Your task to perform on an android device: turn on the 12-hour format for clock Image 0: 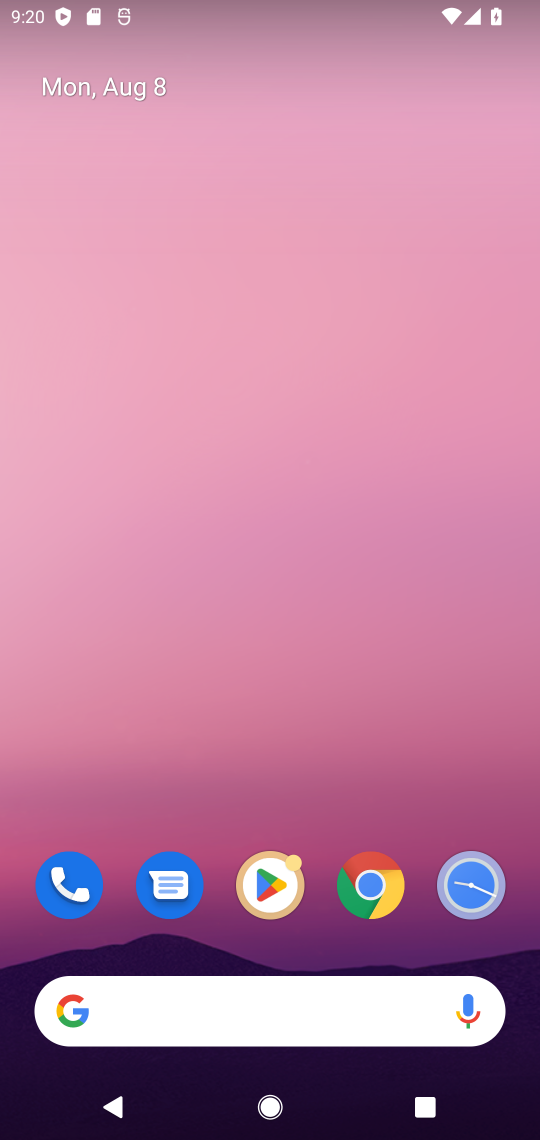
Step 0: drag from (375, 770) to (418, 112)
Your task to perform on an android device: turn on the 12-hour format for clock Image 1: 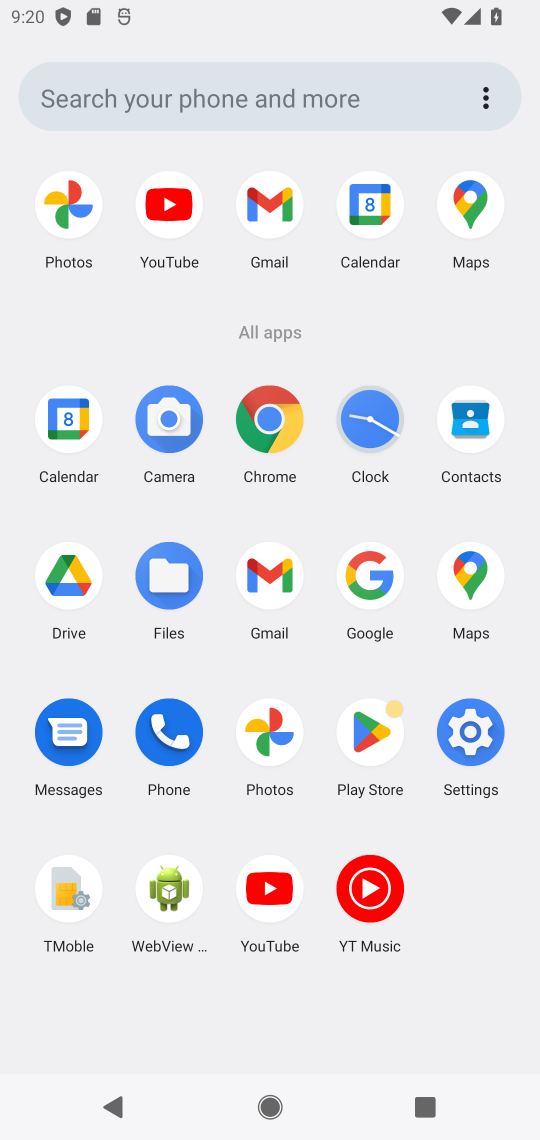
Step 1: click (360, 469)
Your task to perform on an android device: turn on the 12-hour format for clock Image 2: 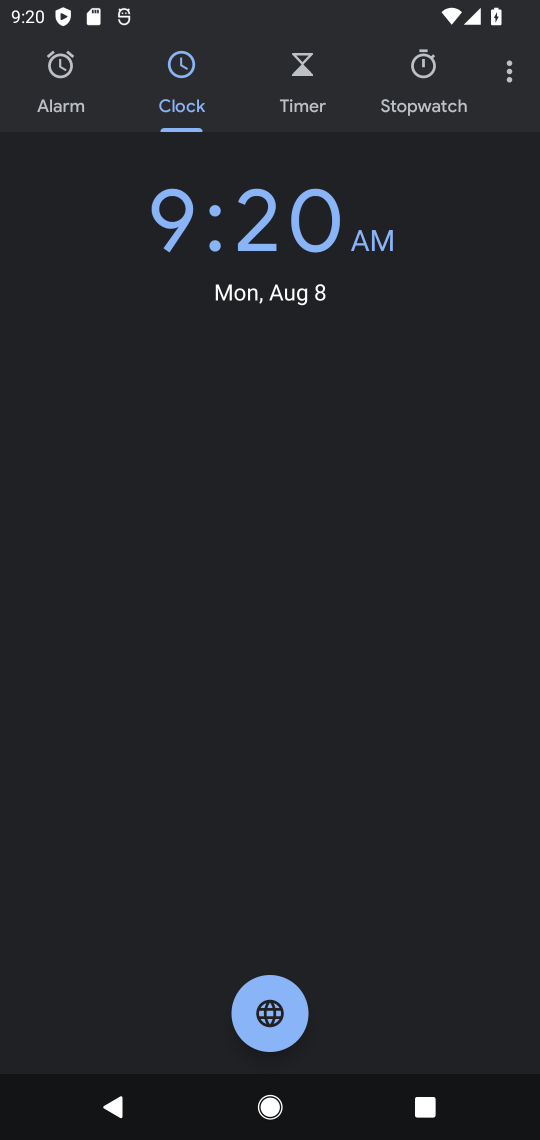
Step 2: click (509, 69)
Your task to perform on an android device: turn on the 12-hour format for clock Image 3: 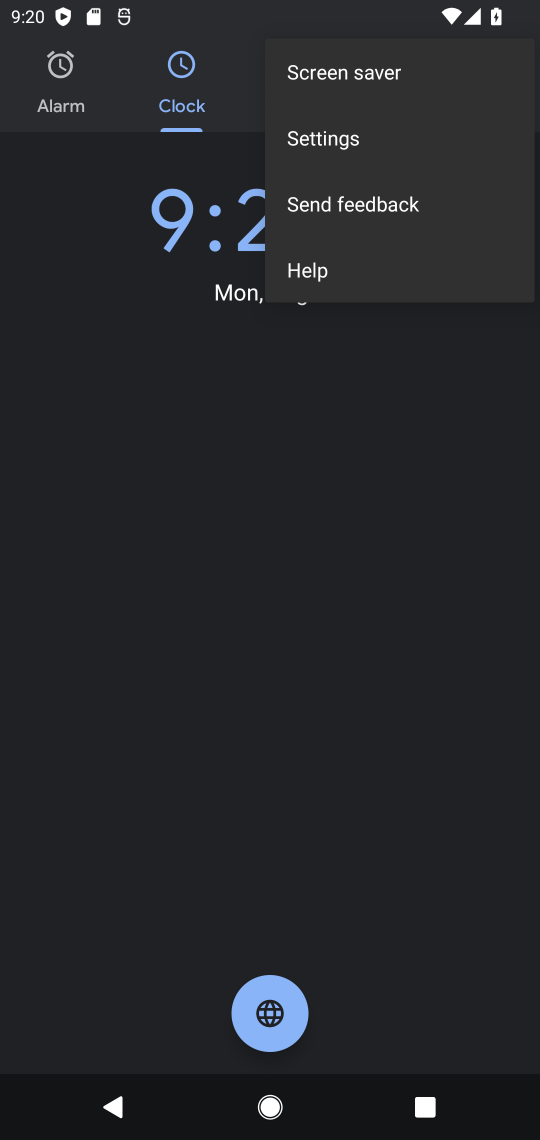
Step 3: click (378, 154)
Your task to perform on an android device: turn on the 12-hour format for clock Image 4: 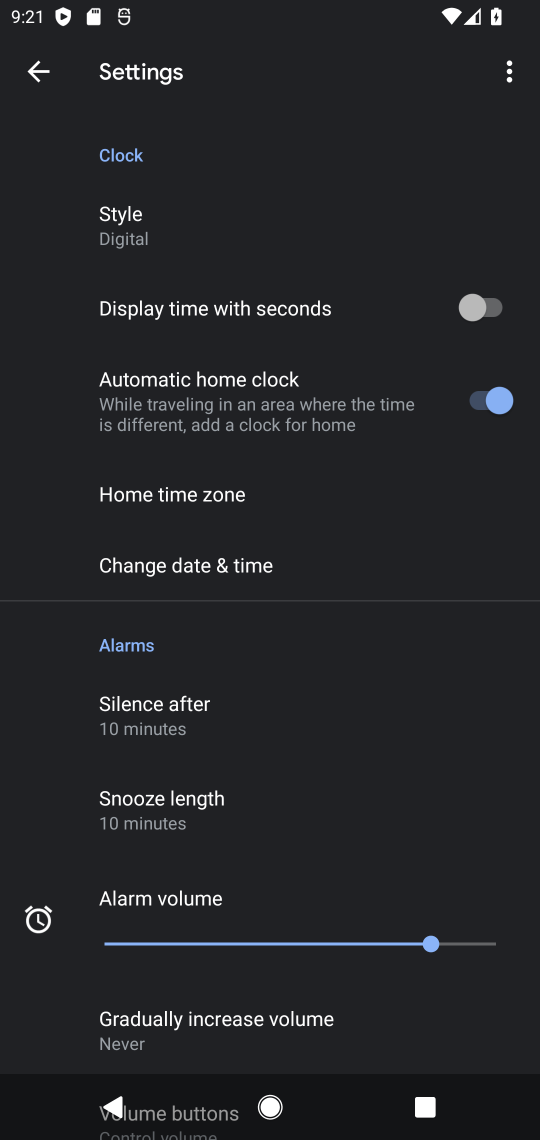
Step 4: click (190, 578)
Your task to perform on an android device: turn on the 12-hour format for clock Image 5: 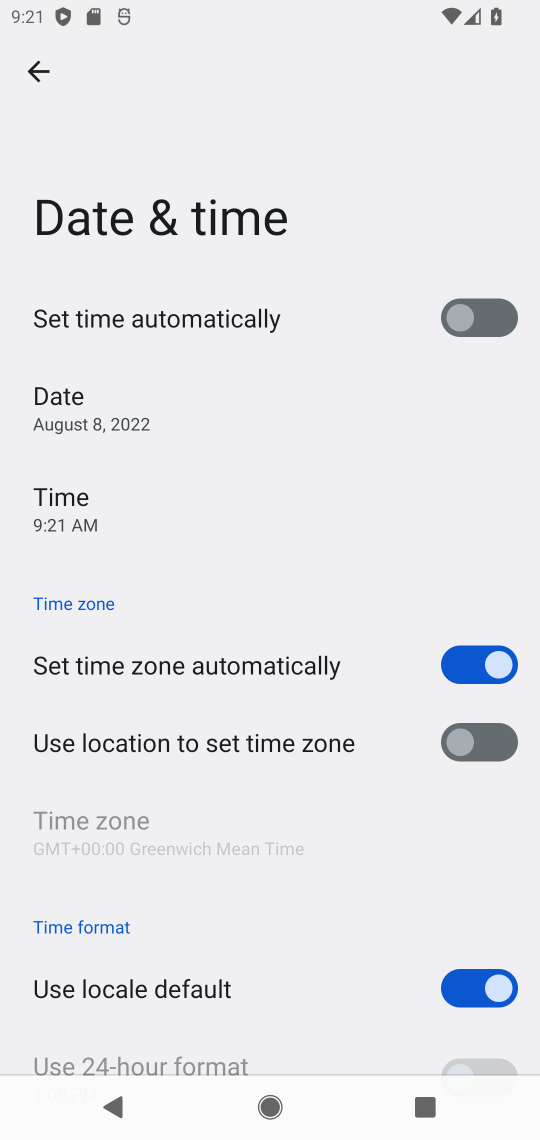
Step 5: drag from (379, 912) to (399, 498)
Your task to perform on an android device: turn on the 12-hour format for clock Image 6: 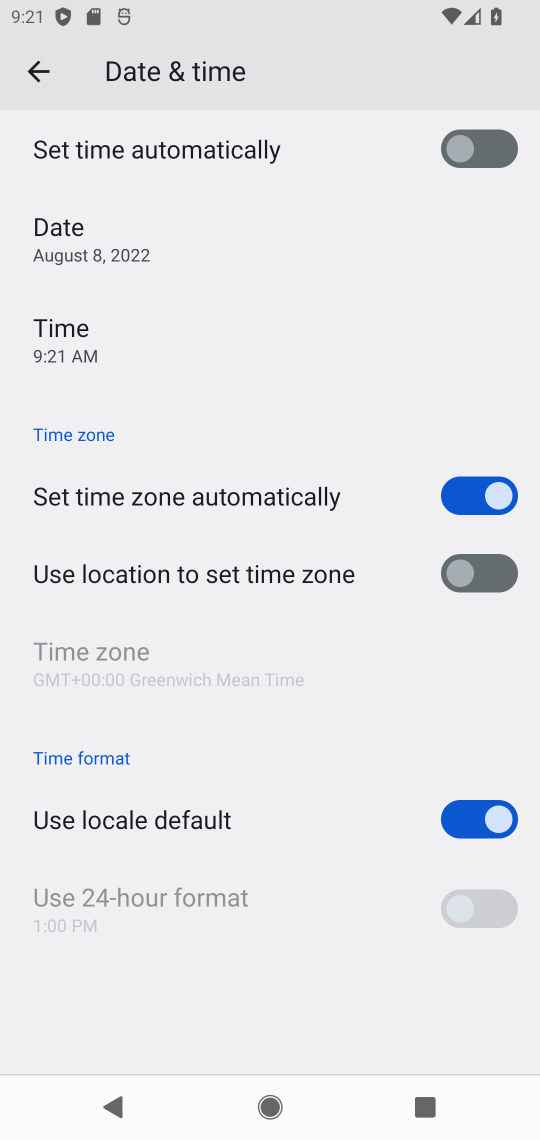
Step 6: drag from (390, 824) to (355, 914)
Your task to perform on an android device: turn on the 12-hour format for clock Image 7: 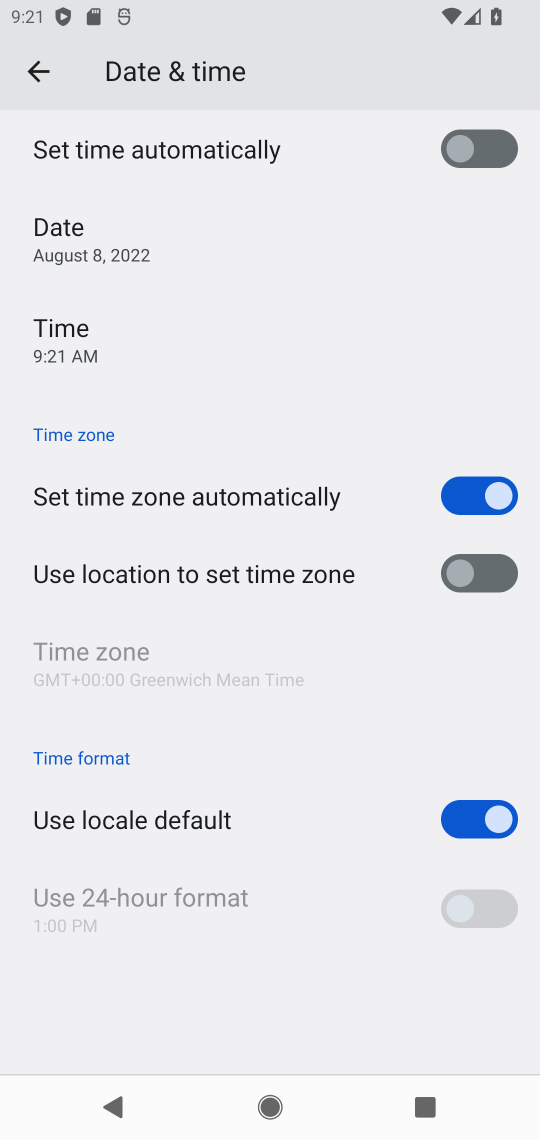
Step 7: click (486, 914)
Your task to perform on an android device: turn on the 12-hour format for clock Image 8: 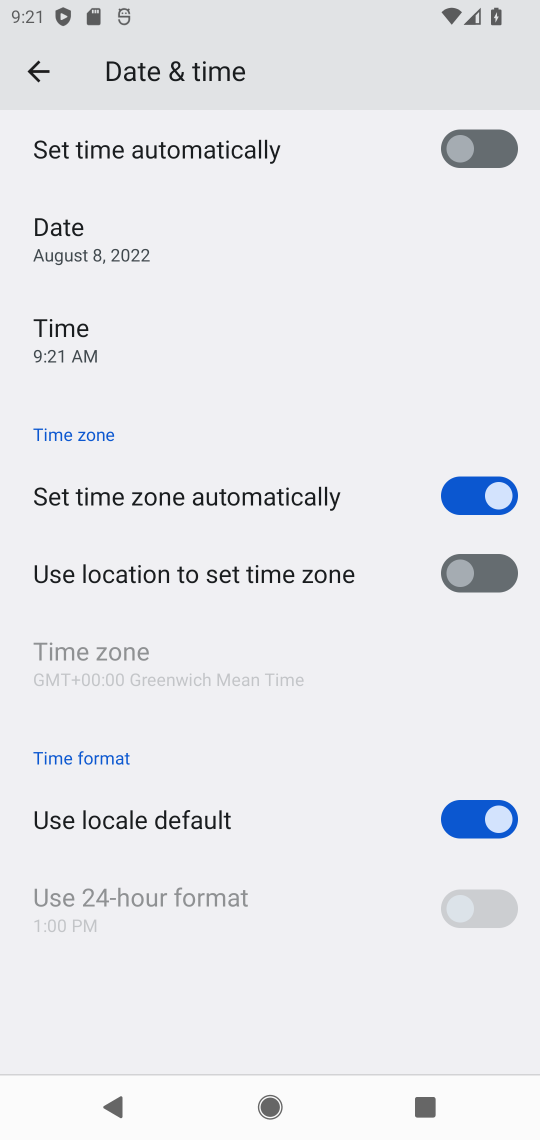
Step 8: click (474, 827)
Your task to perform on an android device: turn on the 12-hour format for clock Image 9: 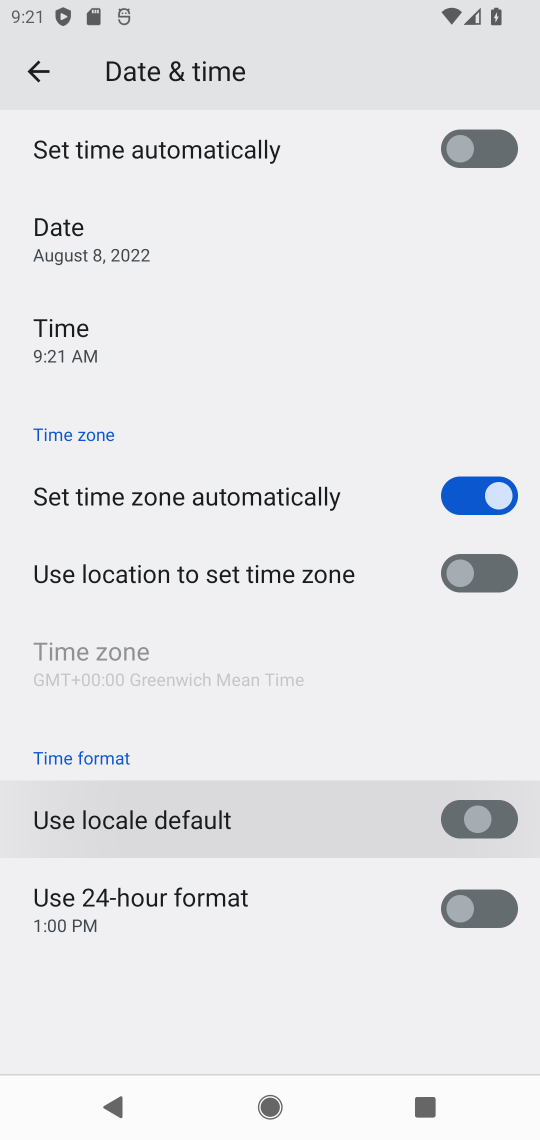
Step 9: click (474, 908)
Your task to perform on an android device: turn on the 12-hour format for clock Image 10: 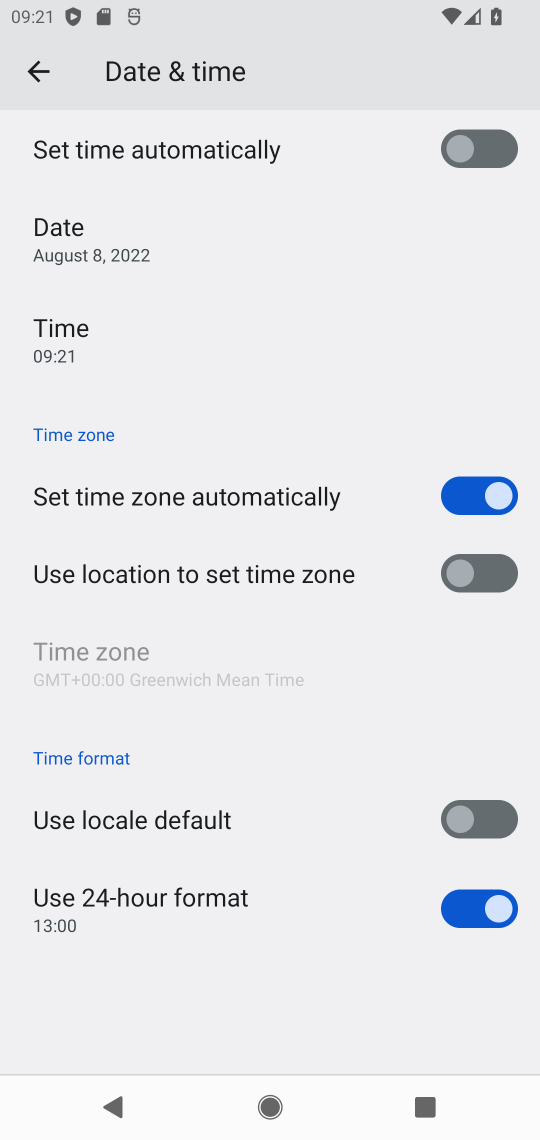
Step 10: task complete